Your task to perform on an android device: check out phone information Image 0: 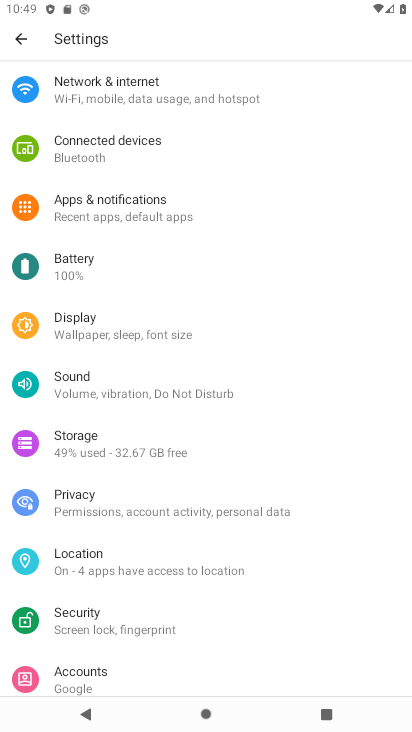
Step 0: press home button
Your task to perform on an android device: check out phone information Image 1: 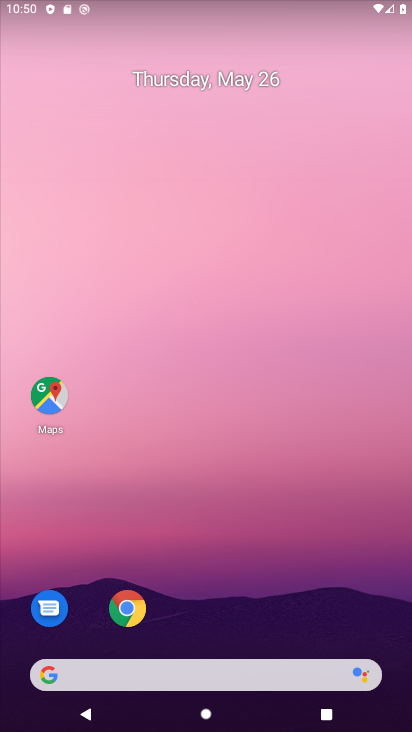
Step 1: drag from (320, 572) to (299, 1)
Your task to perform on an android device: check out phone information Image 2: 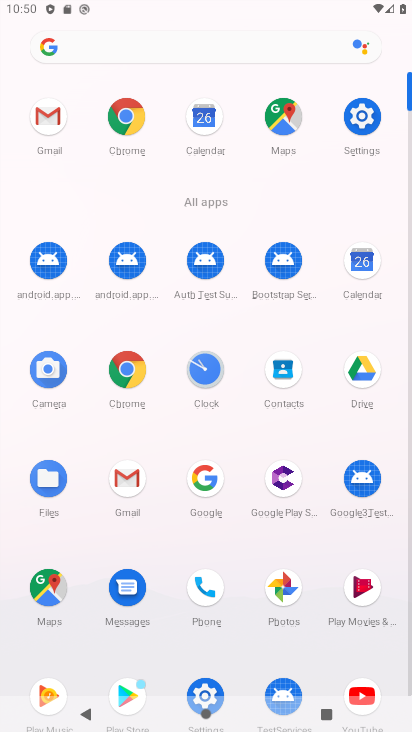
Step 2: click (209, 581)
Your task to perform on an android device: check out phone information Image 3: 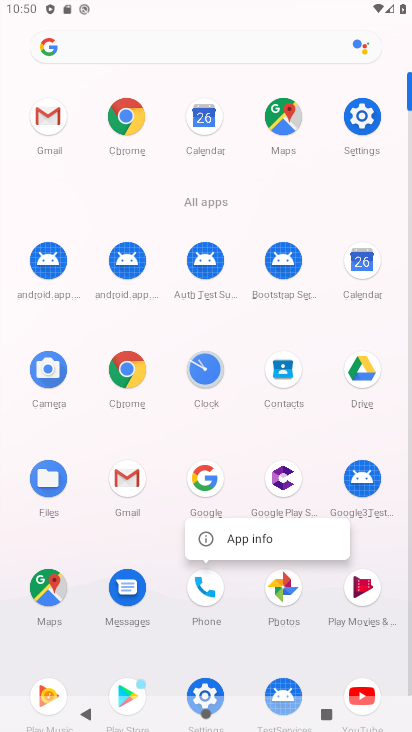
Step 3: click (243, 539)
Your task to perform on an android device: check out phone information Image 4: 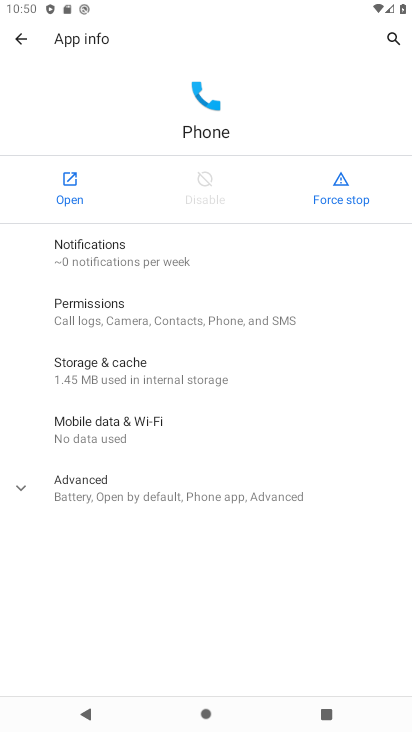
Step 4: task complete